Your task to perform on an android device: Go to notification settings Image 0: 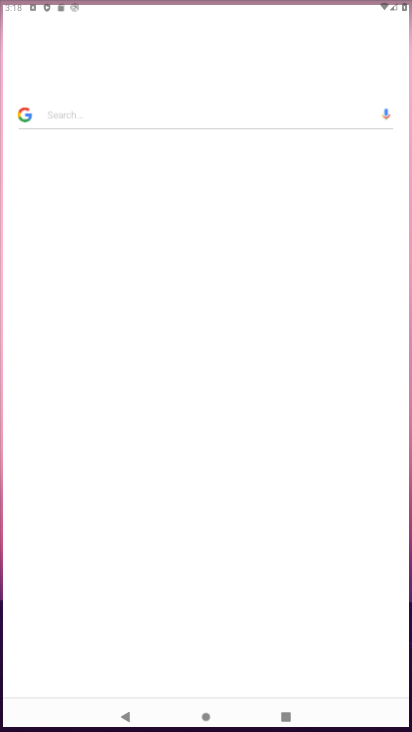
Step 0: drag from (209, 622) to (183, 159)
Your task to perform on an android device: Go to notification settings Image 1: 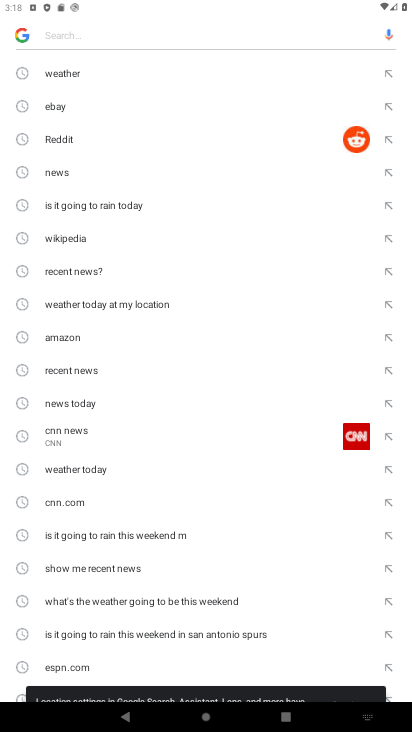
Step 1: press home button
Your task to perform on an android device: Go to notification settings Image 2: 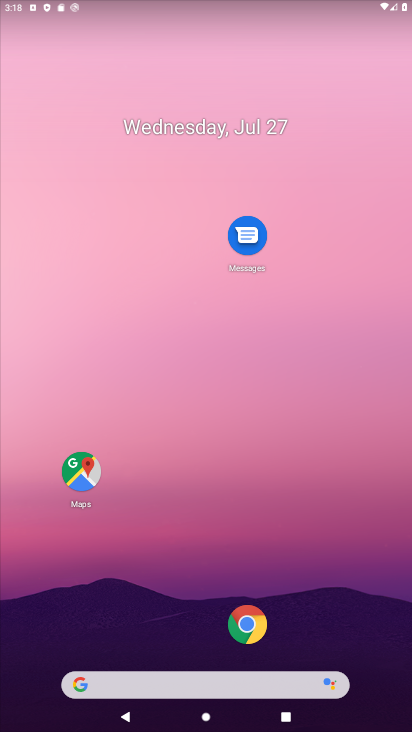
Step 2: drag from (155, 587) to (251, 165)
Your task to perform on an android device: Go to notification settings Image 3: 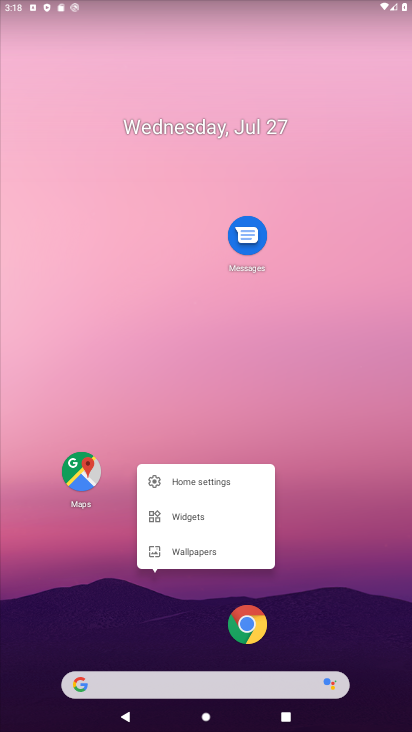
Step 3: drag from (147, 649) to (165, 138)
Your task to perform on an android device: Go to notification settings Image 4: 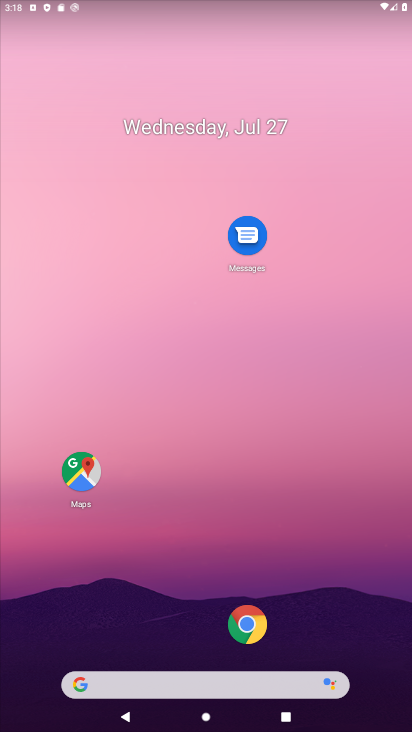
Step 4: drag from (208, 635) to (193, 131)
Your task to perform on an android device: Go to notification settings Image 5: 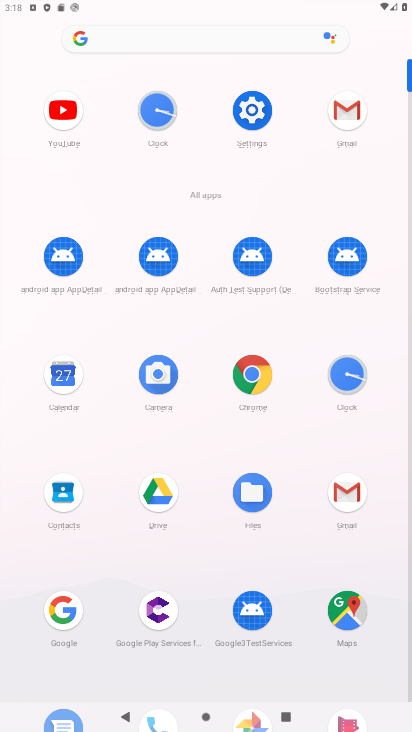
Step 5: click (257, 111)
Your task to perform on an android device: Go to notification settings Image 6: 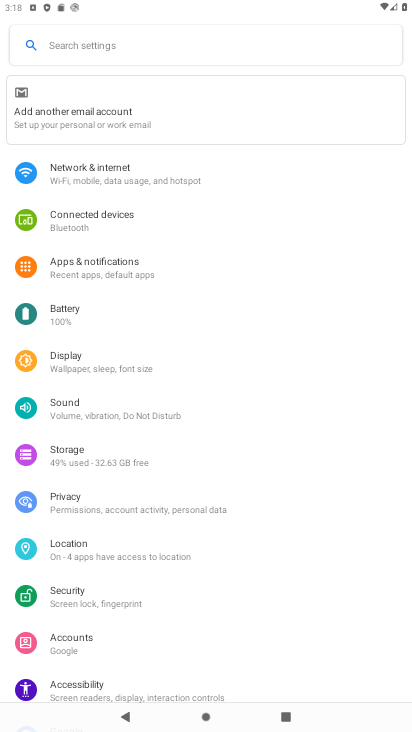
Step 6: click (164, 277)
Your task to perform on an android device: Go to notification settings Image 7: 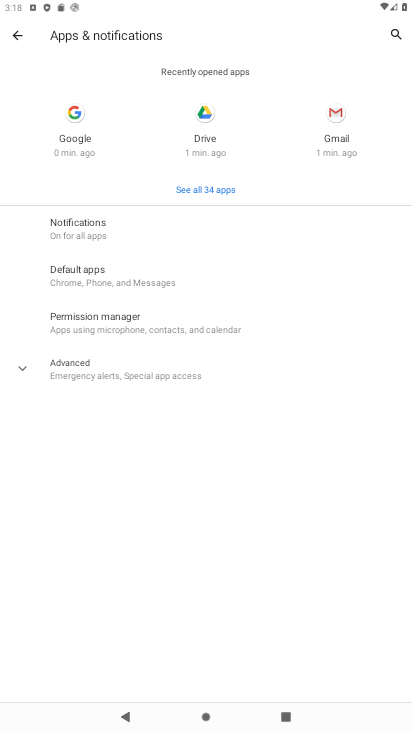
Step 7: task complete